Your task to perform on an android device: When is my next appointment? Image 0: 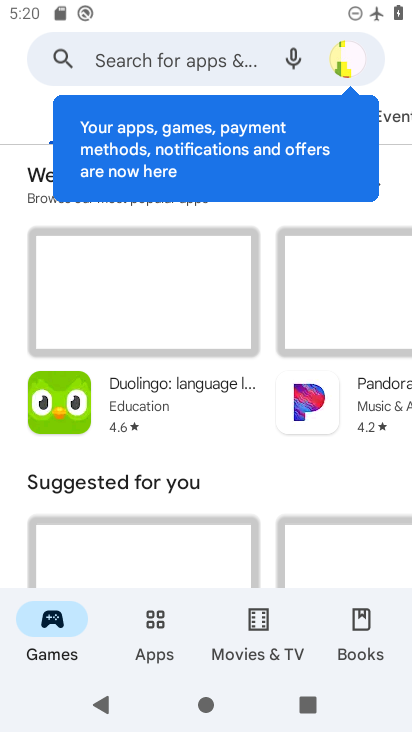
Step 0: press home button
Your task to perform on an android device: When is my next appointment? Image 1: 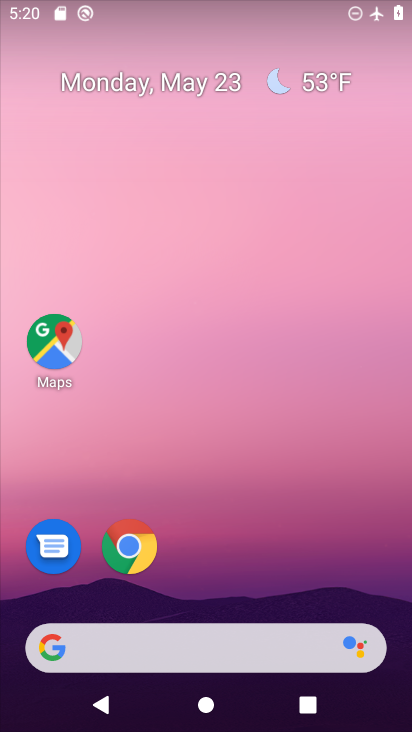
Step 1: click (192, 92)
Your task to perform on an android device: When is my next appointment? Image 2: 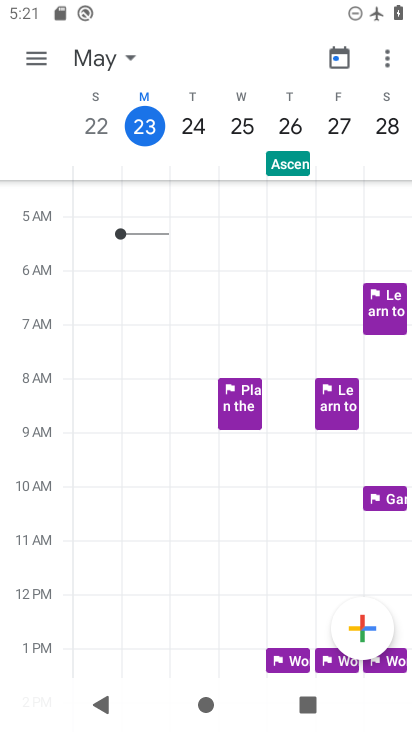
Step 2: click (37, 51)
Your task to perform on an android device: When is my next appointment? Image 3: 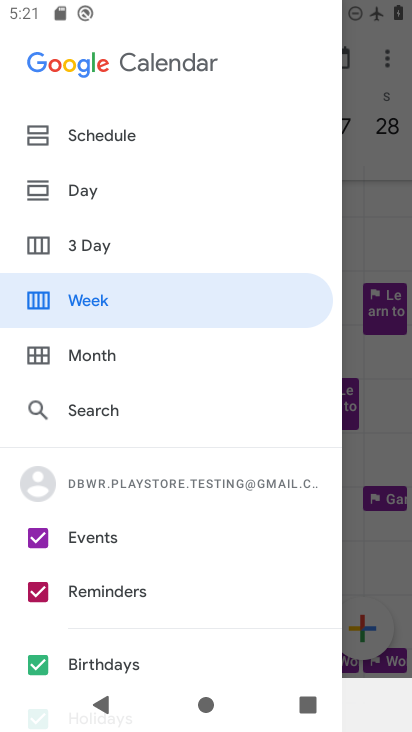
Step 3: click (89, 131)
Your task to perform on an android device: When is my next appointment? Image 4: 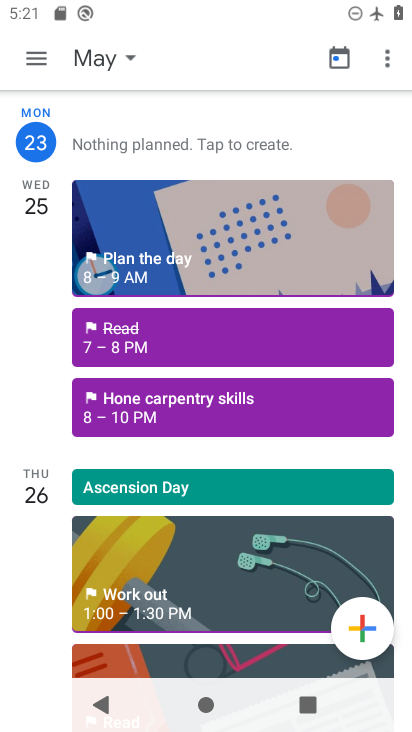
Step 4: task complete